Your task to perform on an android device: Go to Google Image 0: 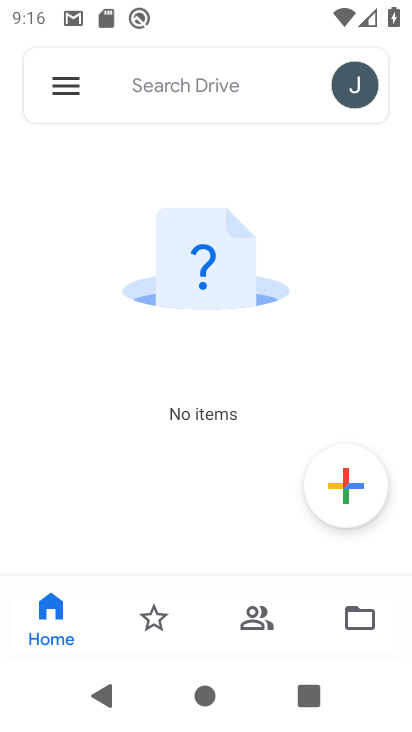
Step 0: press home button
Your task to perform on an android device: Go to Google Image 1: 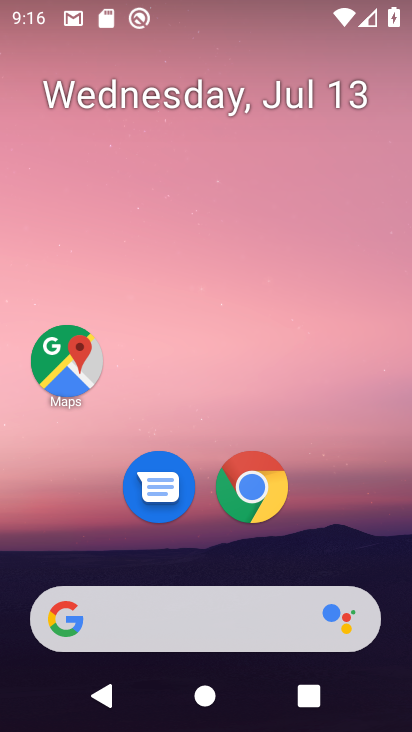
Step 1: drag from (236, 557) to (211, 10)
Your task to perform on an android device: Go to Google Image 2: 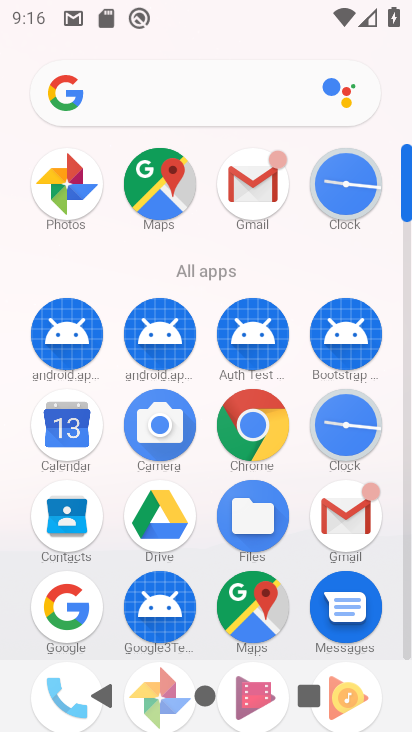
Step 2: drag from (222, 561) to (193, 83)
Your task to perform on an android device: Go to Google Image 3: 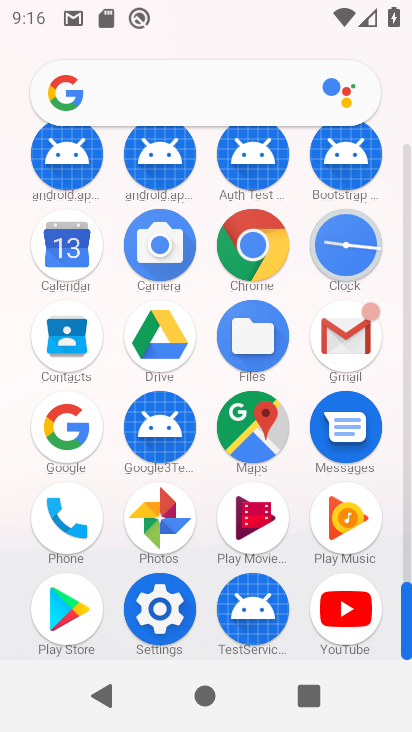
Step 3: click (169, 631)
Your task to perform on an android device: Go to Google Image 4: 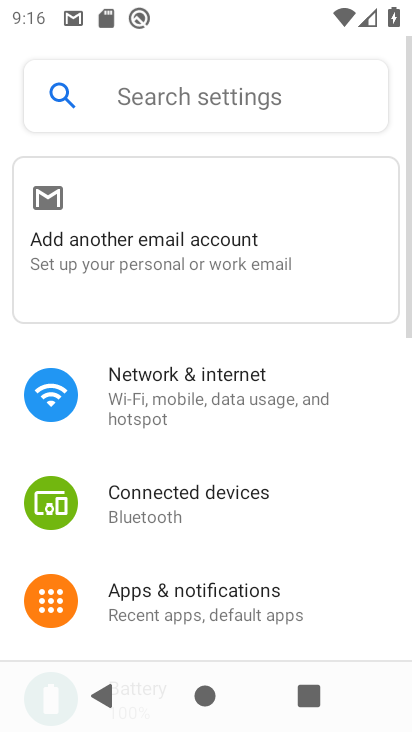
Step 4: drag from (180, 606) to (166, 170)
Your task to perform on an android device: Go to Google Image 5: 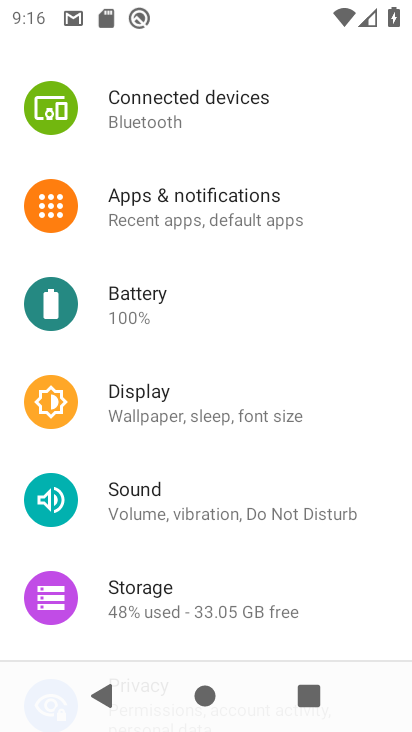
Step 5: press home button
Your task to perform on an android device: Go to Google Image 6: 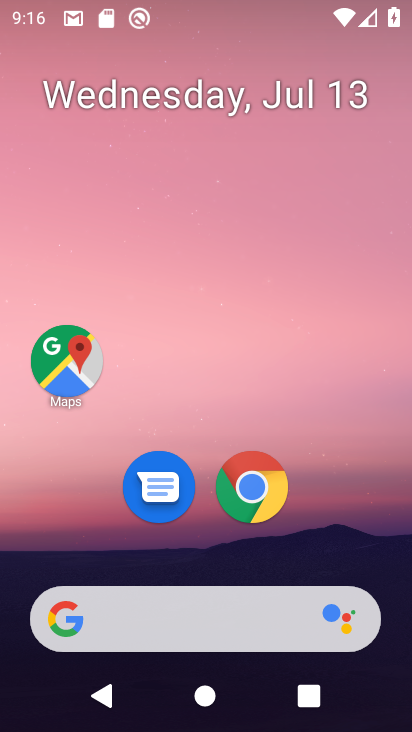
Step 6: drag from (193, 562) to (199, 44)
Your task to perform on an android device: Go to Google Image 7: 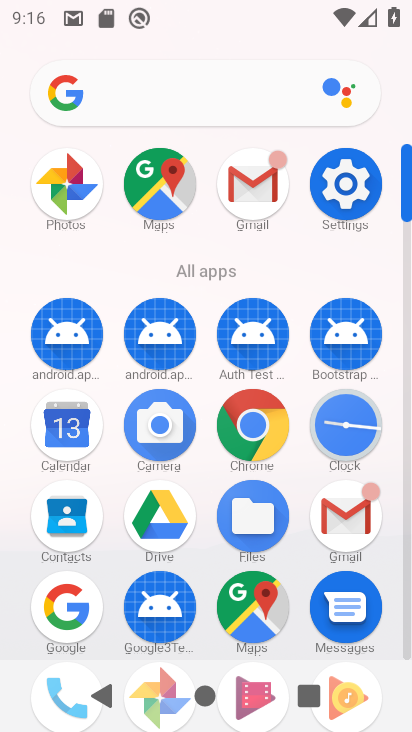
Step 7: click (72, 616)
Your task to perform on an android device: Go to Google Image 8: 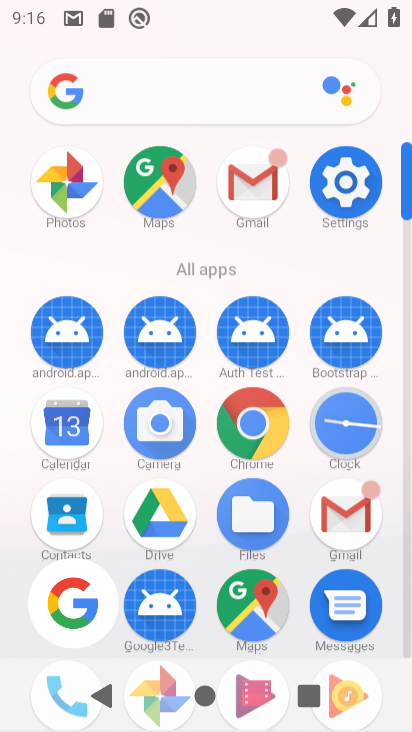
Step 8: task complete